Your task to perform on an android device: Open network settings Image 0: 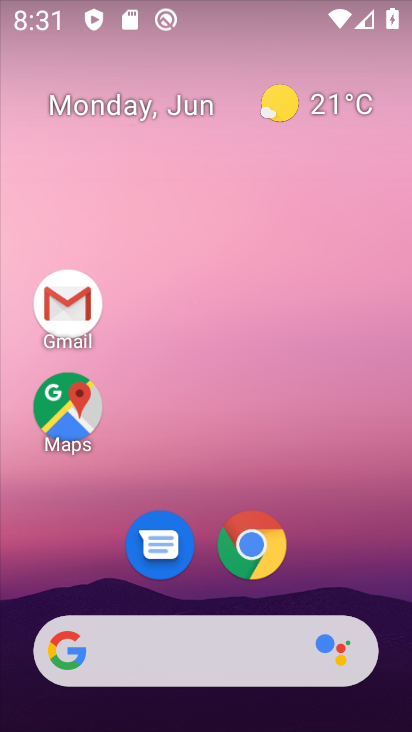
Step 0: drag from (345, 548) to (320, 176)
Your task to perform on an android device: Open network settings Image 1: 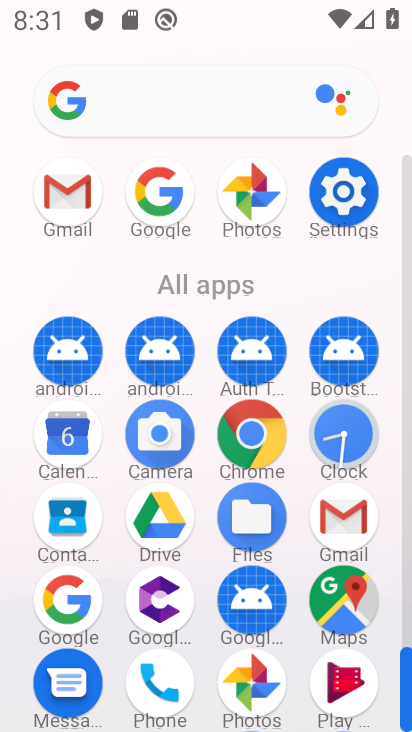
Step 1: drag from (327, 179) to (112, 190)
Your task to perform on an android device: Open network settings Image 2: 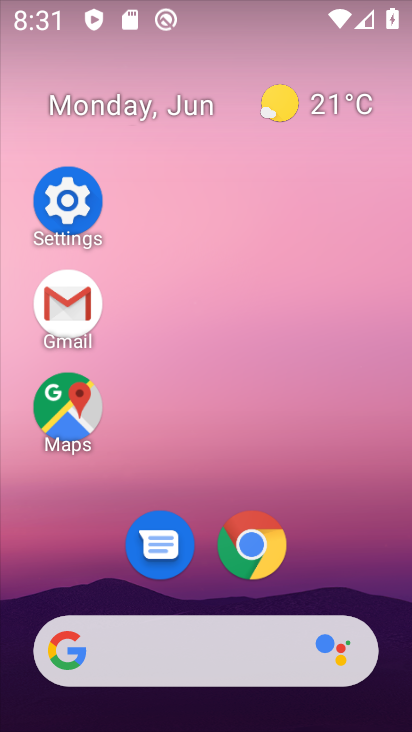
Step 2: click (81, 210)
Your task to perform on an android device: Open network settings Image 3: 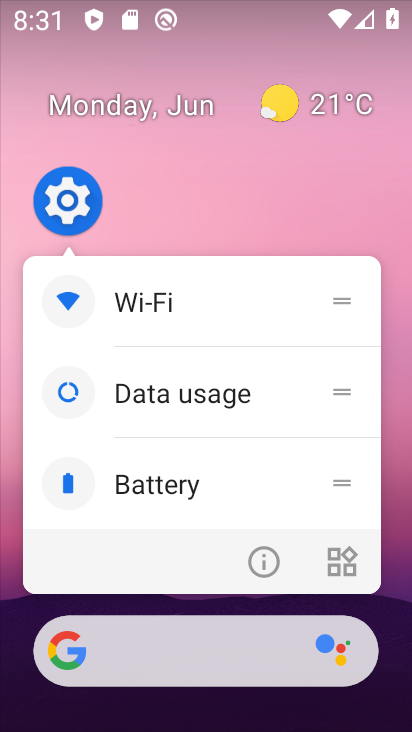
Step 3: click (81, 209)
Your task to perform on an android device: Open network settings Image 4: 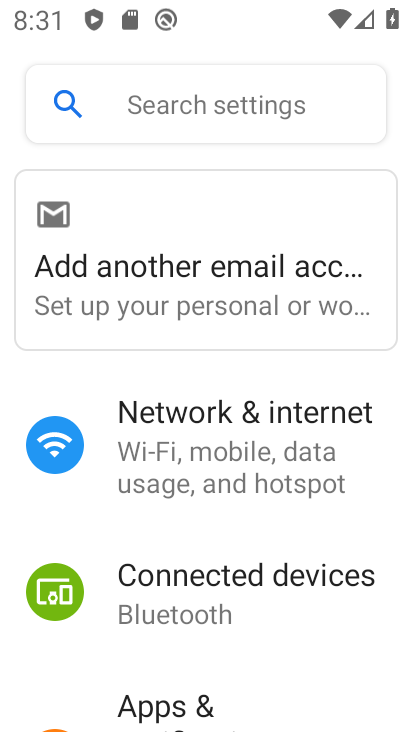
Step 4: click (196, 417)
Your task to perform on an android device: Open network settings Image 5: 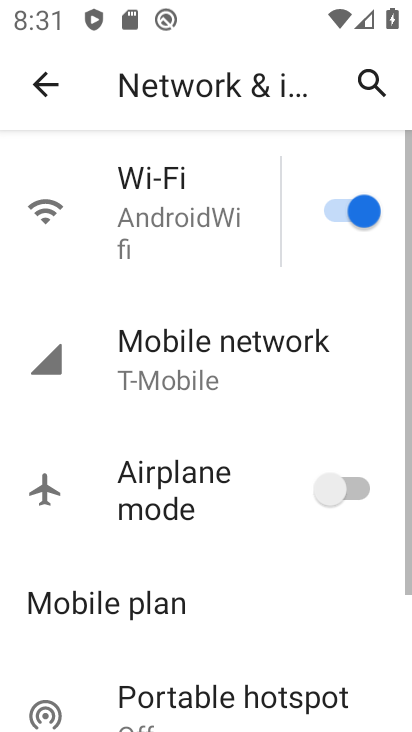
Step 5: task complete